Your task to perform on an android device: toggle notification dots Image 0: 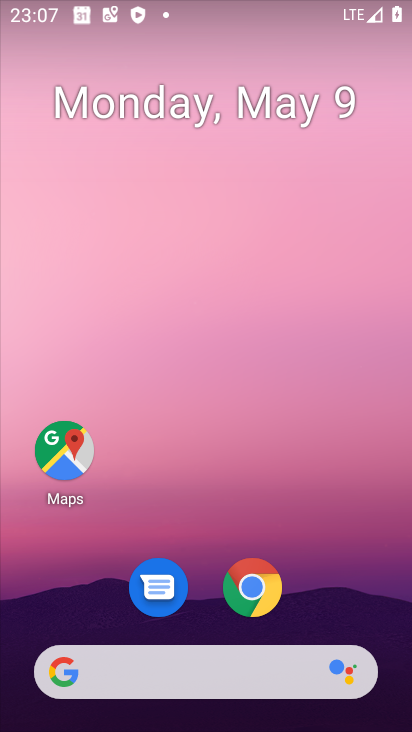
Step 0: drag from (213, 627) to (360, 12)
Your task to perform on an android device: toggle notification dots Image 1: 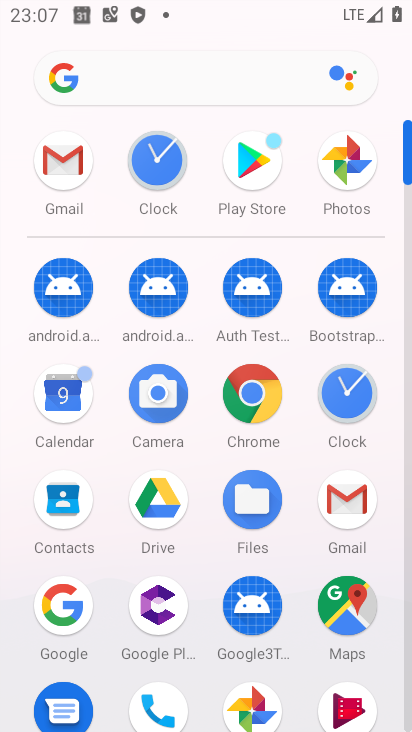
Step 1: drag from (190, 654) to (270, 198)
Your task to perform on an android device: toggle notification dots Image 2: 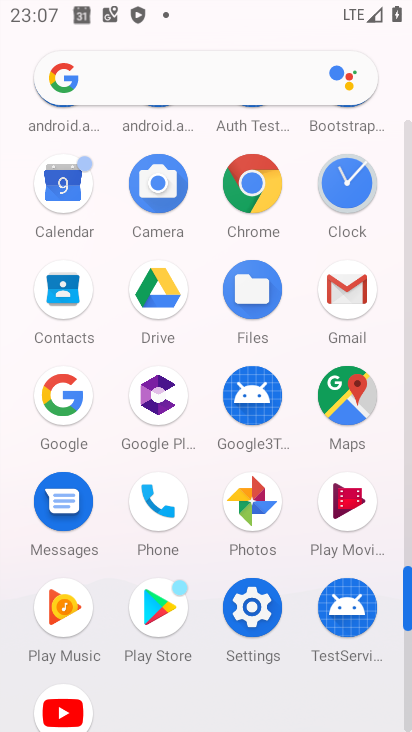
Step 2: click (246, 627)
Your task to perform on an android device: toggle notification dots Image 3: 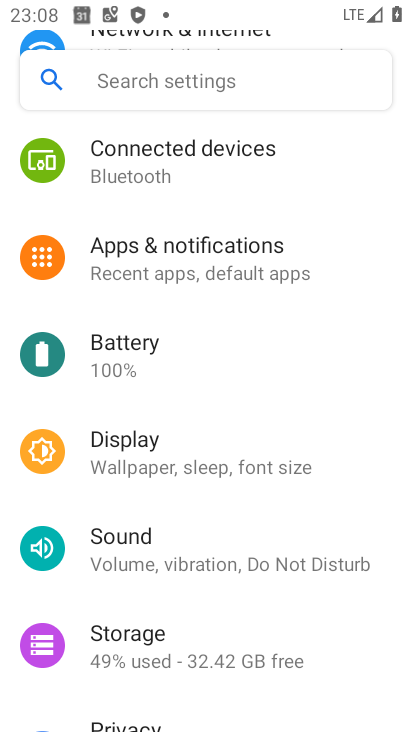
Step 3: drag from (172, 613) to (236, 267)
Your task to perform on an android device: toggle notification dots Image 4: 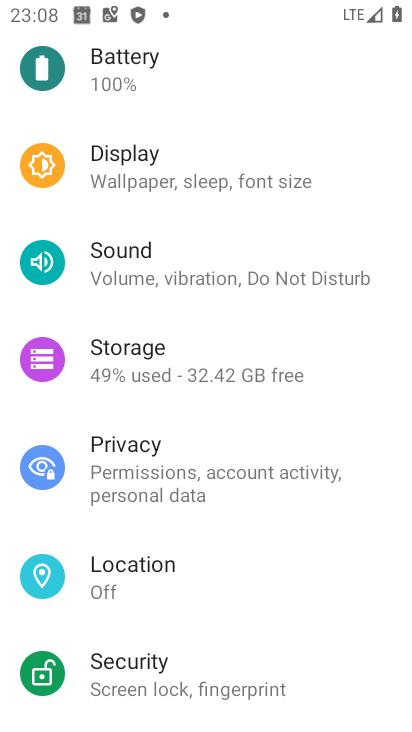
Step 4: drag from (235, 79) to (139, 642)
Your task to perform on an android device: toggle notification dots Image 5: 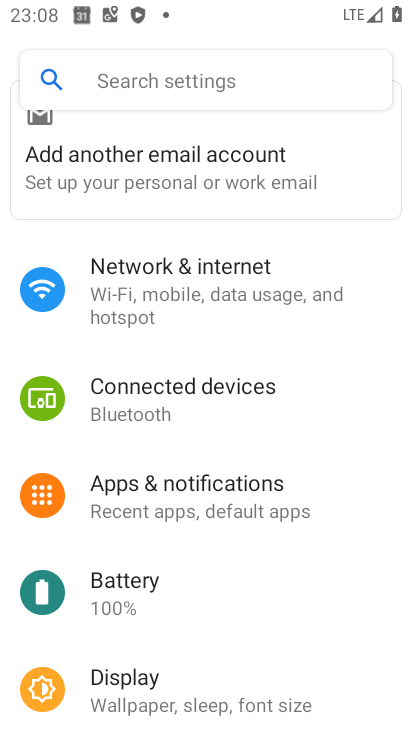
Step 5: click (198, 482)
Your task to perform on an android device: toggle notification dots Image 6: 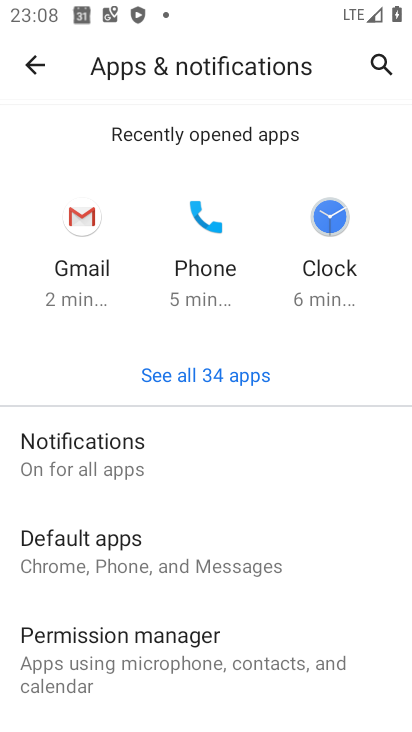
Step 6: drag from (159, 591) to (319, 43)
Your task to perform on an android device: toggle notification dots Image 7: 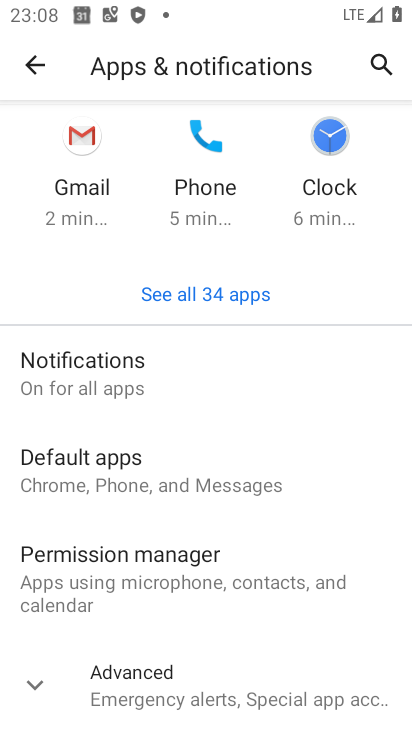
Step 7: drag from (248, 561) to (314, 87)
Your task to perform on an android device: toggle notification dots Image 8: 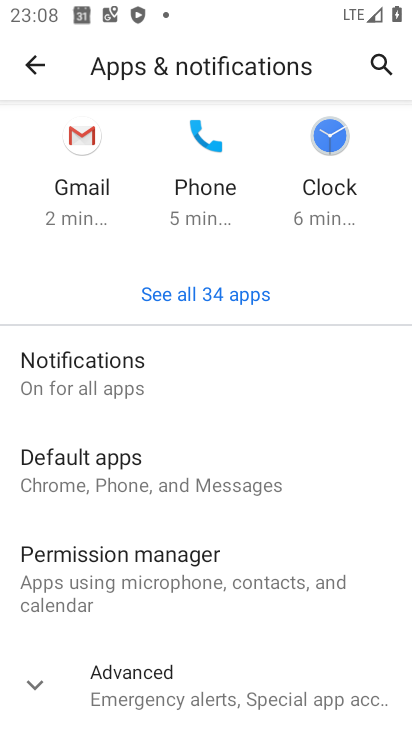
Step 8: click (141, 692)
Your task to perform on an android device: toggle notification dots Image 9: 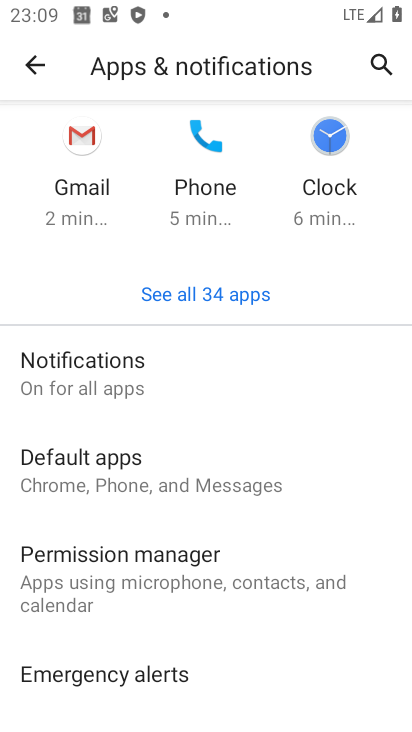
Step 9: drag from (161, 609) to (221, 227)
Your task to perform on an android device: toggle notification dots Image 10: 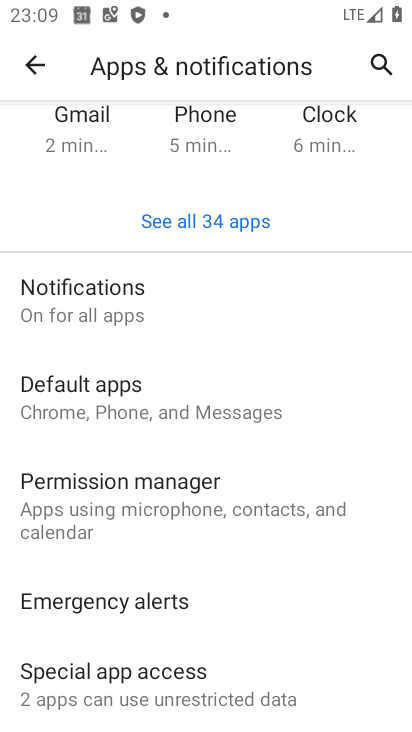
Step 10: drag from (144, 616) to (160, 535)
Your task to perform on an android device: toggle notification dots Image 11: 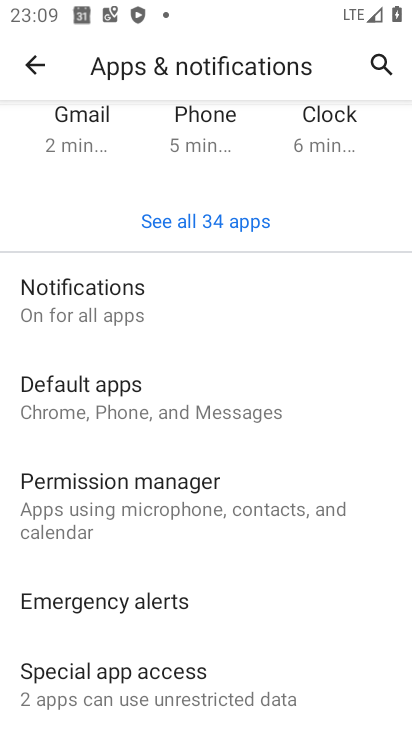
Step 11: drag from (290, 593) to (358, 47)
Your task to perform on an android device: toggle notification dots Image 12: 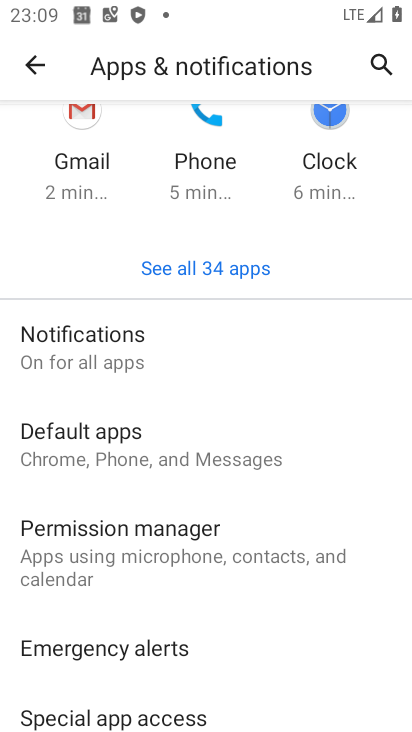
Step 12: drag from (289, 599) to (321, 411)
Your task to perform on an android device: toggle notification dots Image 13: 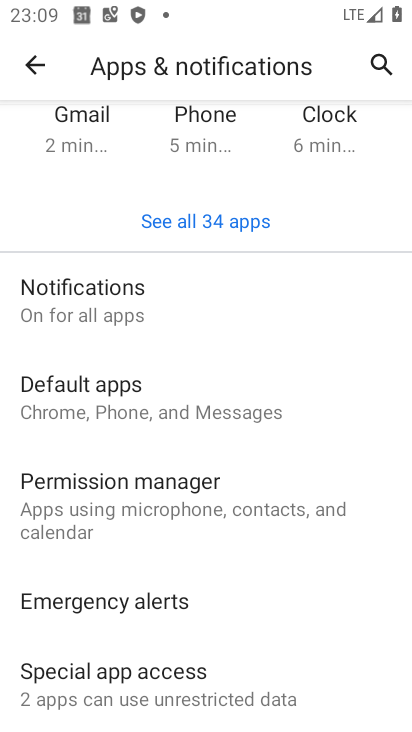
Step 13: click (181, 317)
Your task to perform on an android device: toggle notification dots Image 14: 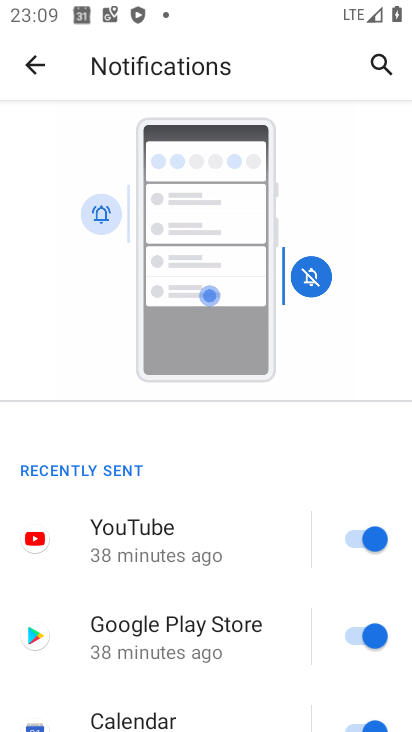
Step 14: drag from (244, 630) to (327, 224)
Your task to perform on an android device: toggle notification dots Image 15: 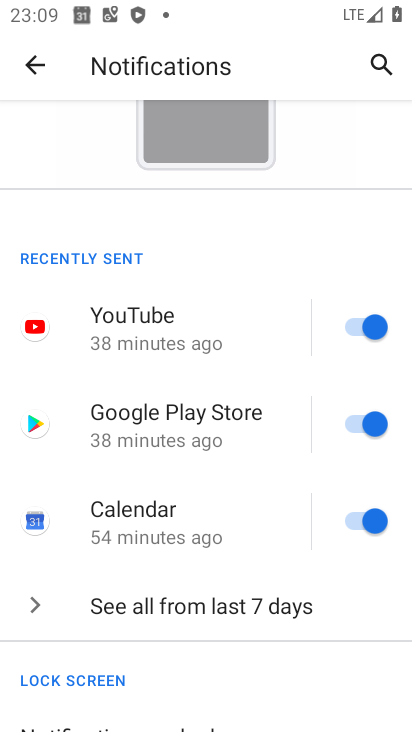
Step 15: drag from (246, 680) to (244, 185)
Your task to perform on an android device: toggle notification dots Image 16: 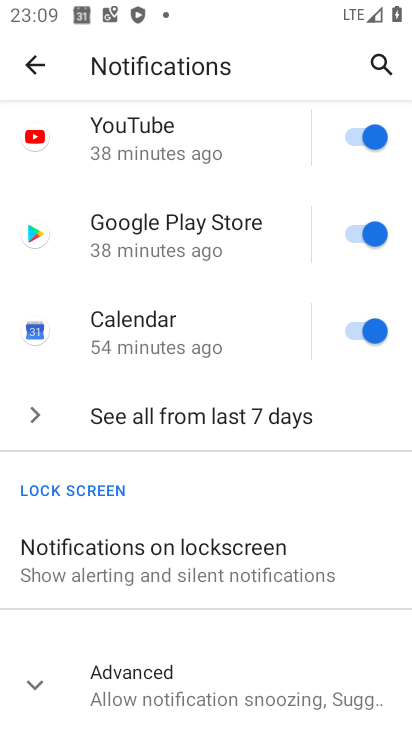
Step 16: drag from (258, 692) to (350, 146)
Your task to perform on an android device: toggle notification dots Image 17: 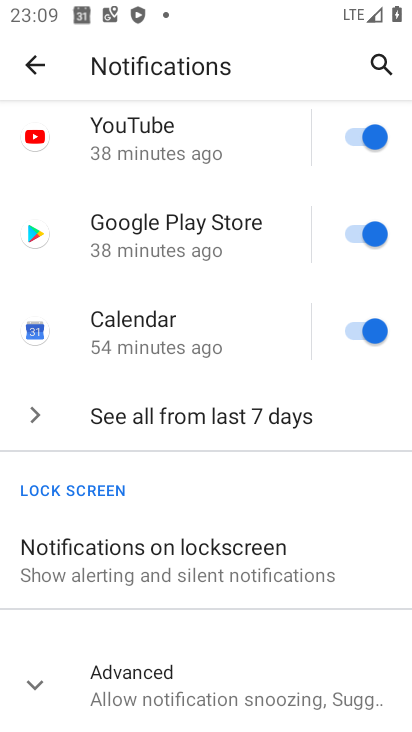
Step 17: click (223, 595)
Your task to perform on an android device: toggle notification dots Image 18: 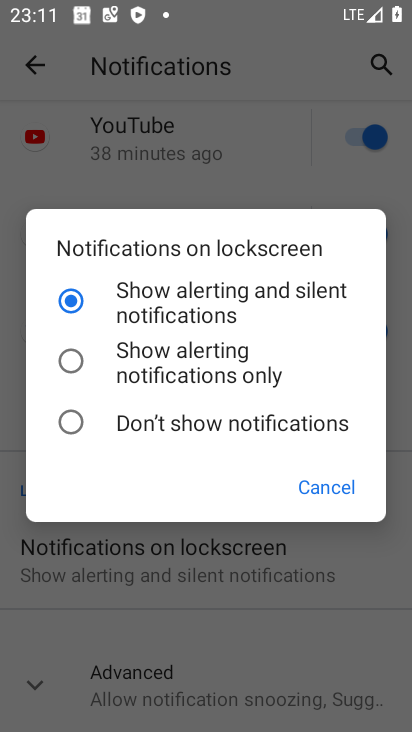
Step 18: click (337, 505)
Your task to perform on an android device: toggle notification dots Image 19: 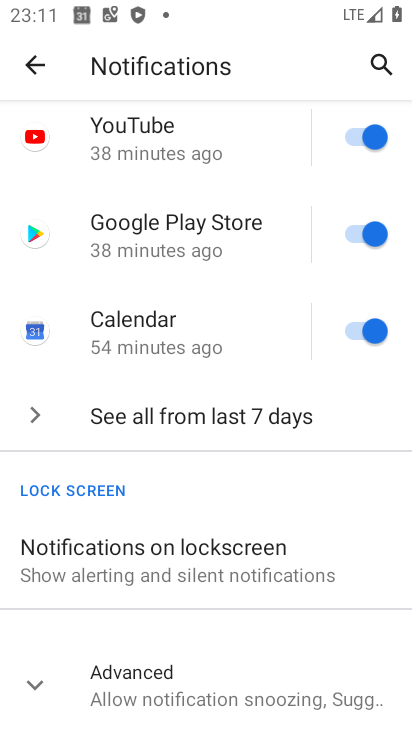
Step 19: click (138, 685)
Your task to perform on an android device: toggle notification dots Image 20: 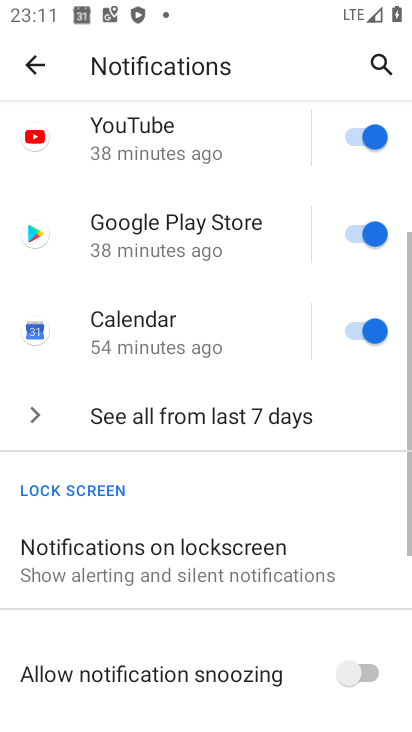
Step 20: drag from (138, 685) to (163, 234)
Your task to perform on an android device: toggle notification dots Image 21: 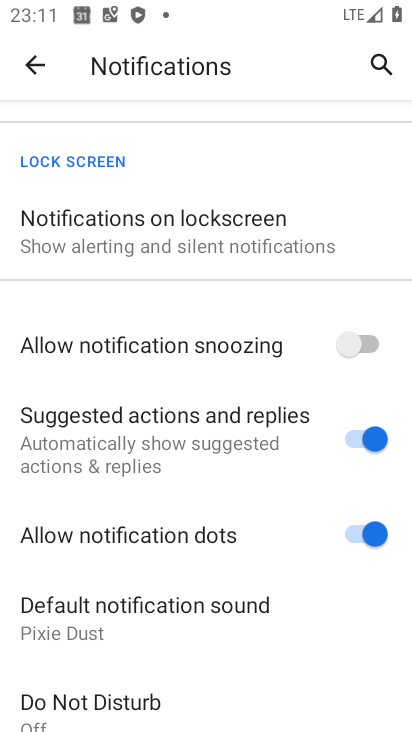
Step 21: click (349, 549)
Your task to perform on an android device: toggle notification dots Image 22: 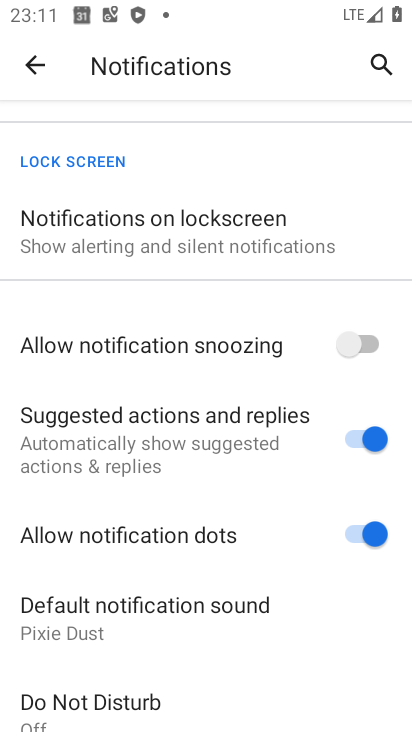
Step 22: click (349, 549)
Your task to perform on an android device: toggle notification dots Image 23: 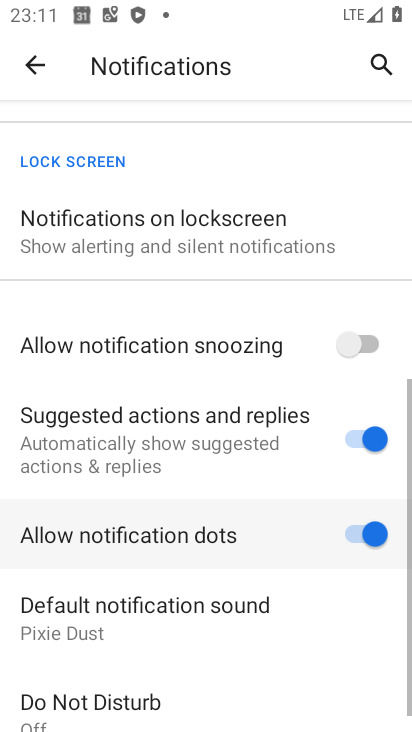
Step 23: click (349, 549)
Your task to perform on an android device: toggle notification dots Image 24: 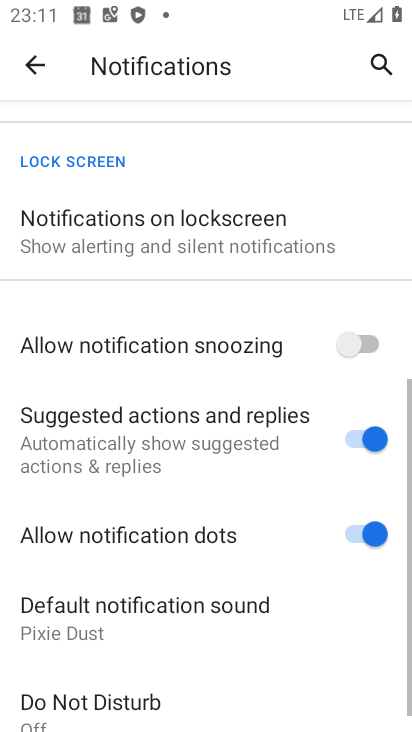
Step 24: click (349, 549)
Your task to perform on an android device: toggle notification dots Image 25: 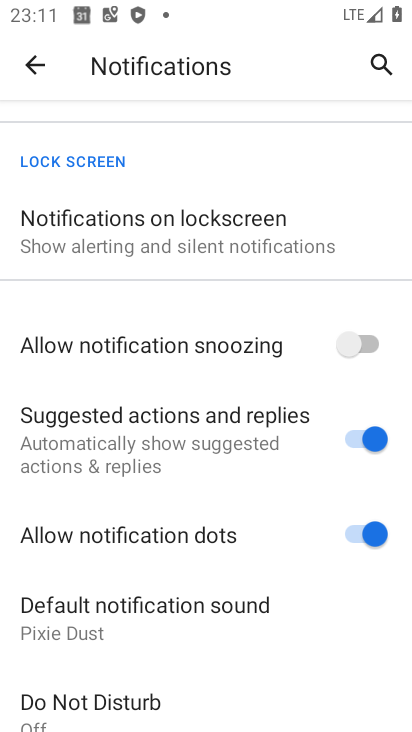
Step 25: task complete